Your task to perform on an android device: search for starred emails in the gmail app Image 0: 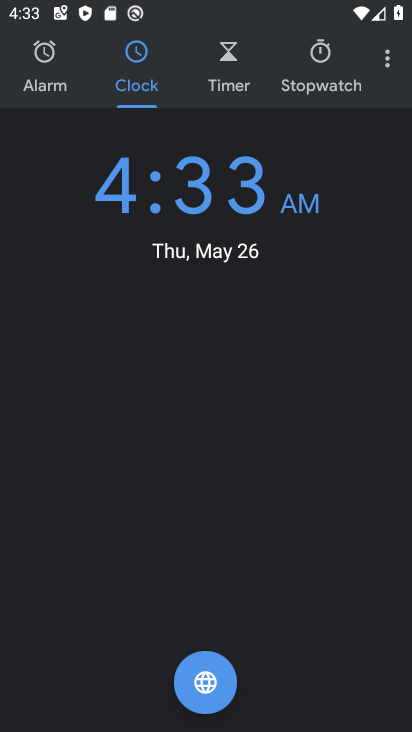
Step 0: drag from (207, 15) to (93, 557)
Your task to perform on an android device: search for starred emails in the gmail app Image 1: 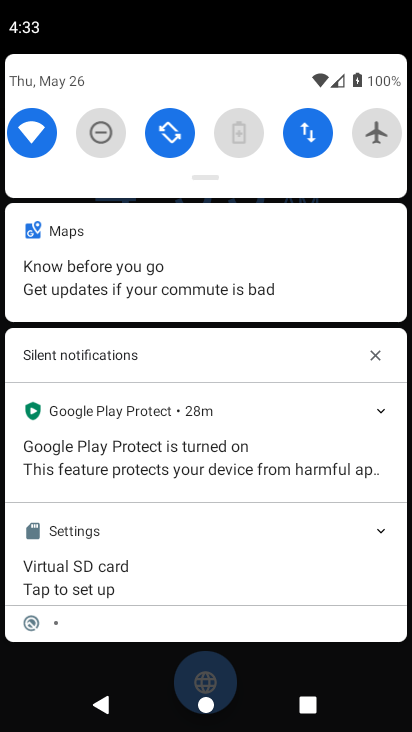
Step 1: press home button
Your task to perform on an android device: search for starred emails in the gmail app Image 2: 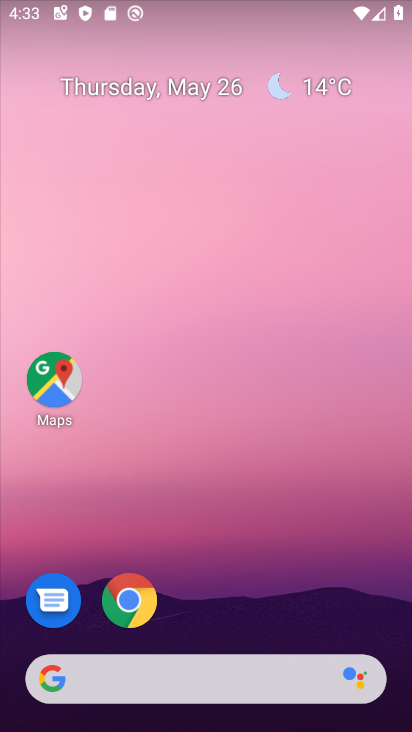
Step 2: drag from (211, 612) to (237, 205)
Your task to perform on an android device: search for starred emails in the gmail app Image 3: 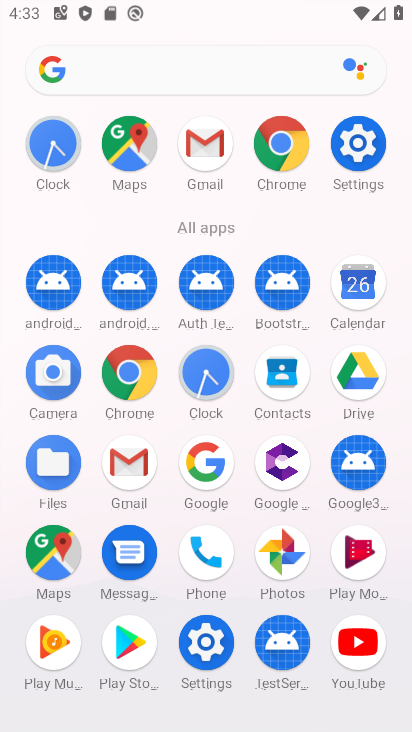
Step 3: click (198, 153)
Your task to perform on an android device: search for starred emails in the gmail app Image 4: 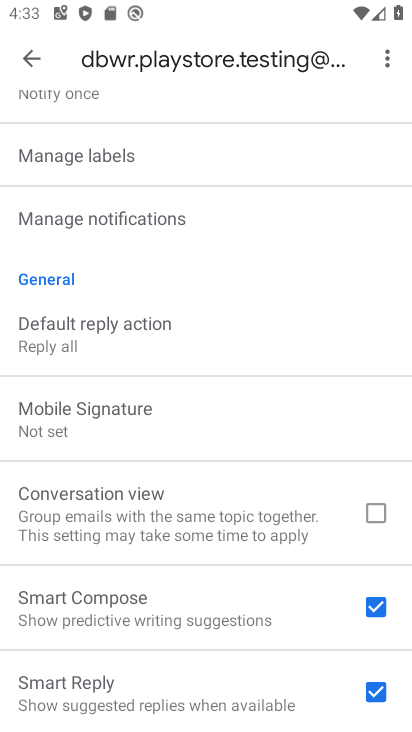
Step 4: click (20, 65)
Your task to perform on an android device: search for starred emails in the gmail app Image 5: 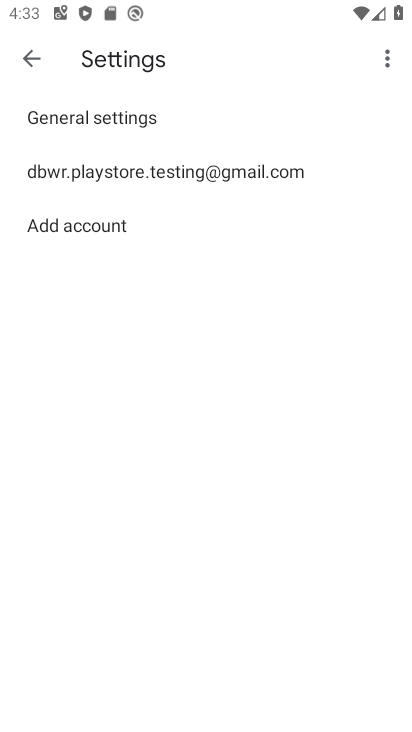
Step 5: click (20, 65)
Your task to perform on an android device: search for starred emails in the gmail app Image 6: 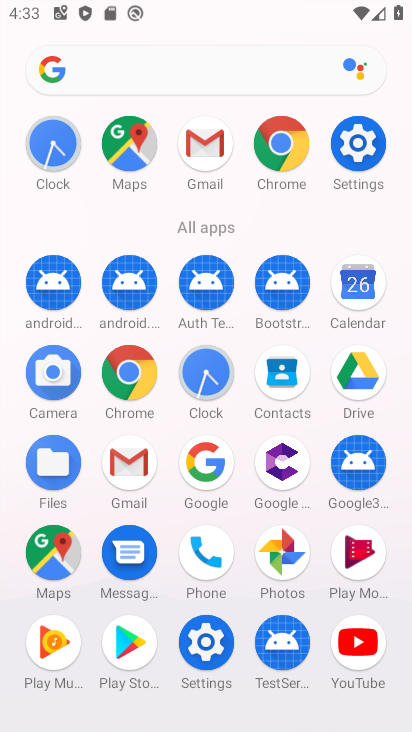
Step 6: click (192, 147)
Your task to perform on an android device: search for starred emails in the gmail app Image 7: 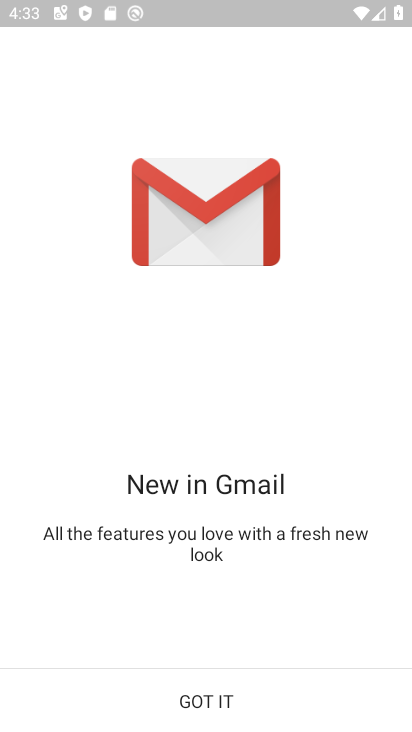
Step 7: click (142, 688)
Your task to perform on an android device: search for starred emails in the gmail app Image 8: 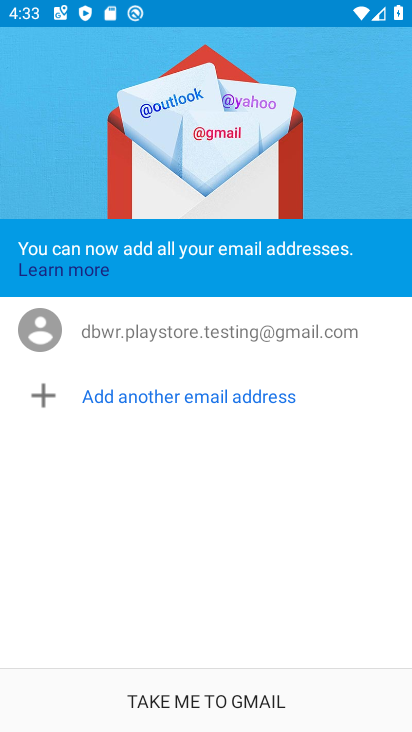
Step 8: click (142, 688)
Your task to perform on an android device: search for starred emails in the gmail app Image 9: 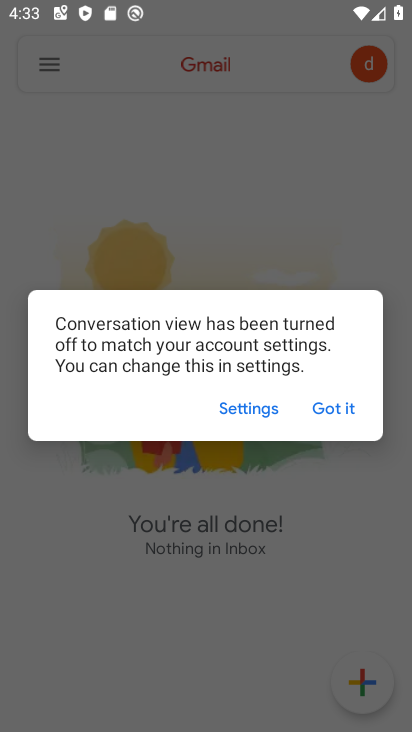
Step 9: click (333, 408)
Your task to perform on an android device: search for starred emails in the gmail app Image 10: 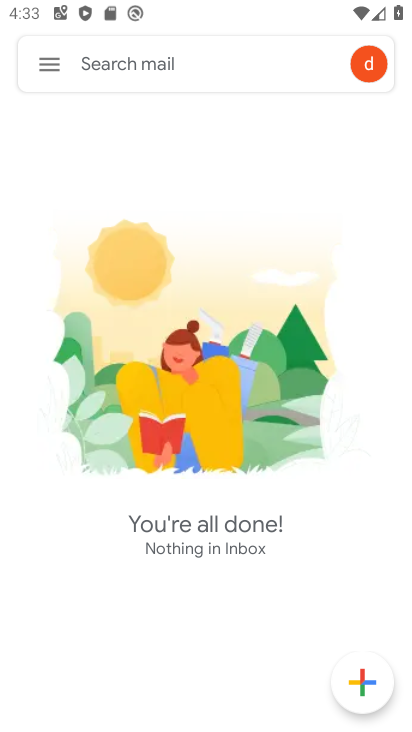
Step 10: click (54, 67)
Your task to perform on an android device: search for starred emails in the gmail app Image 11: 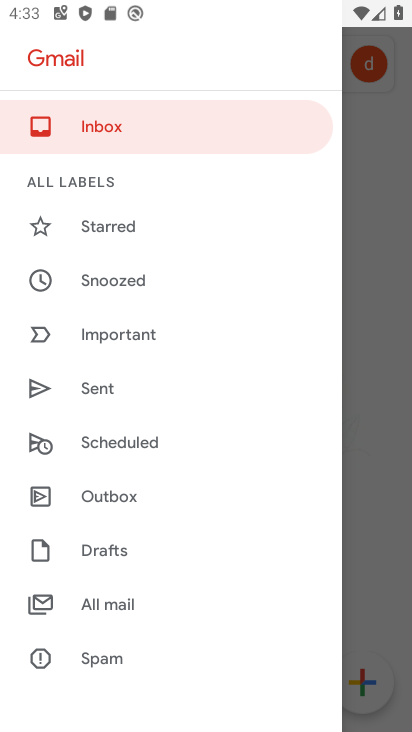
Step 11: click (149, 229)
Your task to perform on an android device: search for starred emails in the gmail app Image 12: 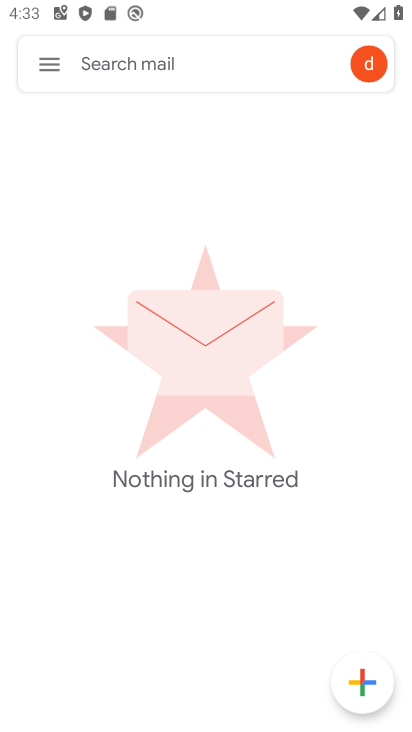
Step 12: task complete